Your task to perform on an android device: Open Chrome and go to settings Image 0: 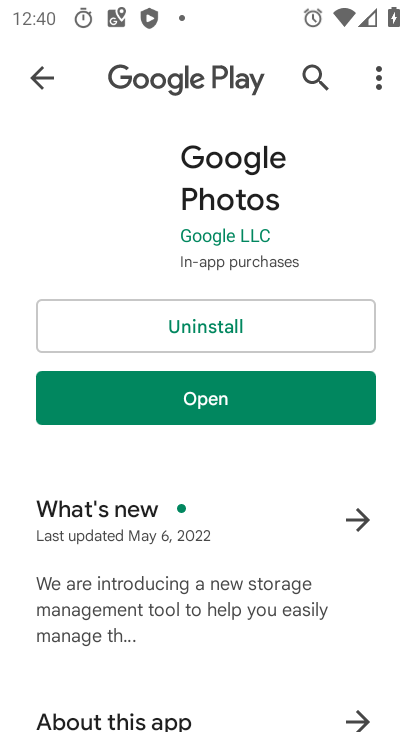
Step 0: drag from (351, 567) to (316, 208)
Your task to perform on an android device: Open Chrome and go to settings Image 1: 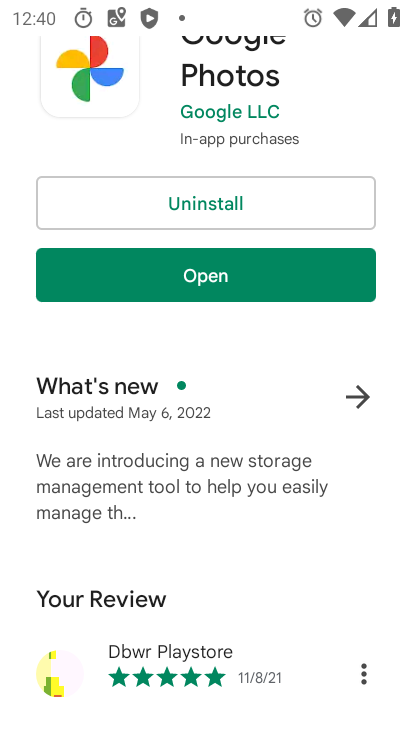
Step 1: press home button
Your task to perform on an android device: Open Chrome and go to settings Image 2: 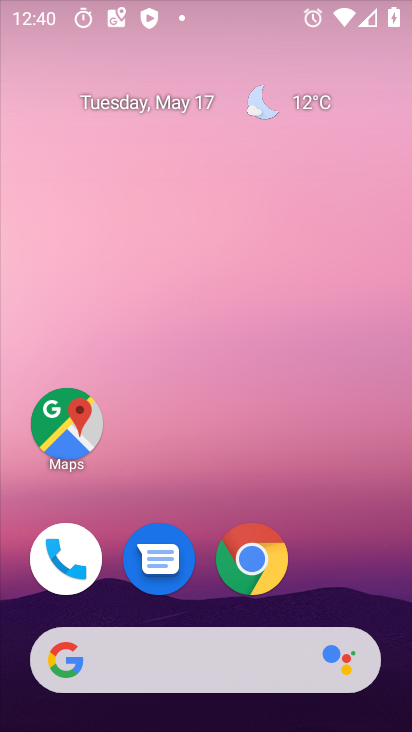
Step 2: drag from (339, 532) to (309, 170)
Your task to perform on an android device: Open Chrome and go to settings Image 3: 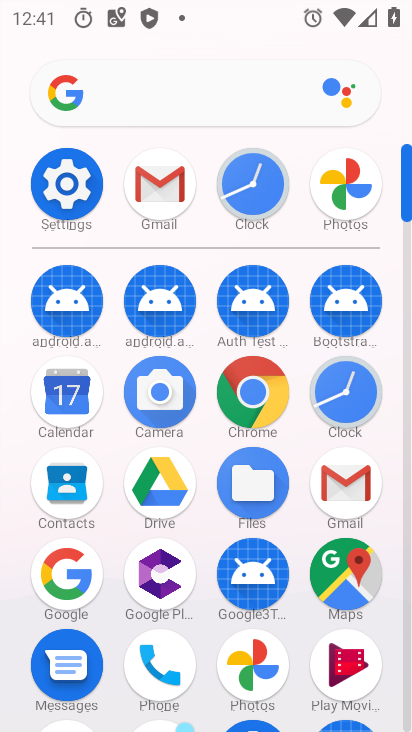
Step 3: click (260, 406)
Your task to perform on an android device: Open Chrome and go to settings Image 4: 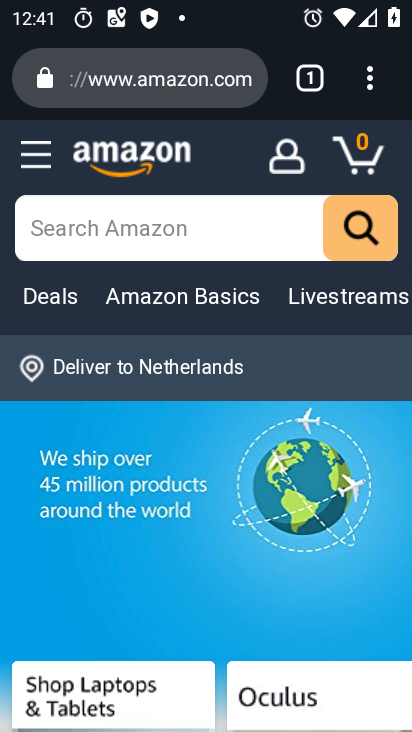
Step 4: click (368, 85)
Your task to perform on an android device: Open Chrome and go to settings Image 5: 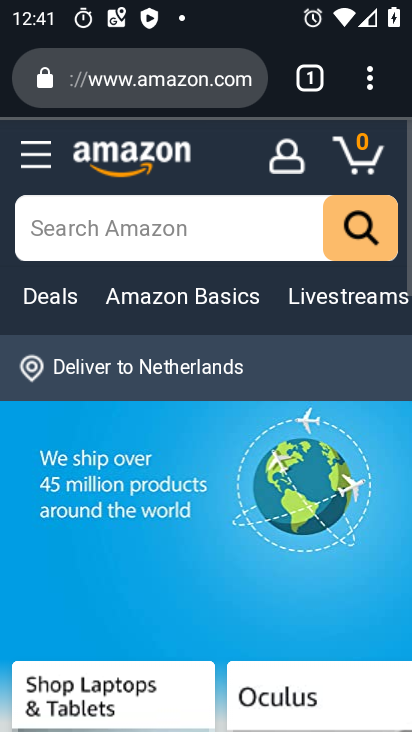
Step 5: task complete